Your task to perform on an android device: check google app version Image 0: 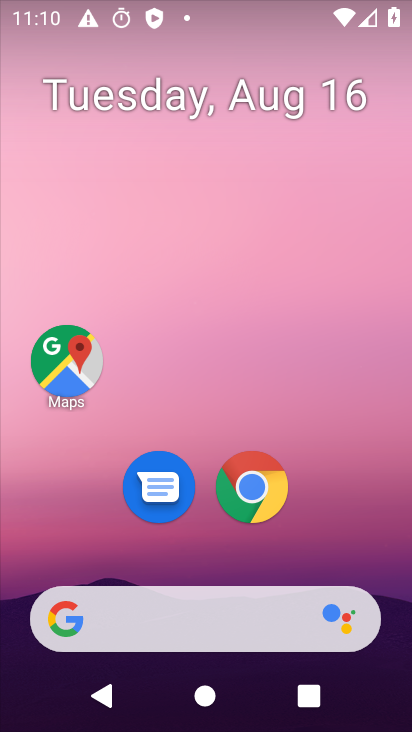
Step 0: drag from (336, 572) to (248, 131)
Your task to perform on an android device: check google app version Image 1: 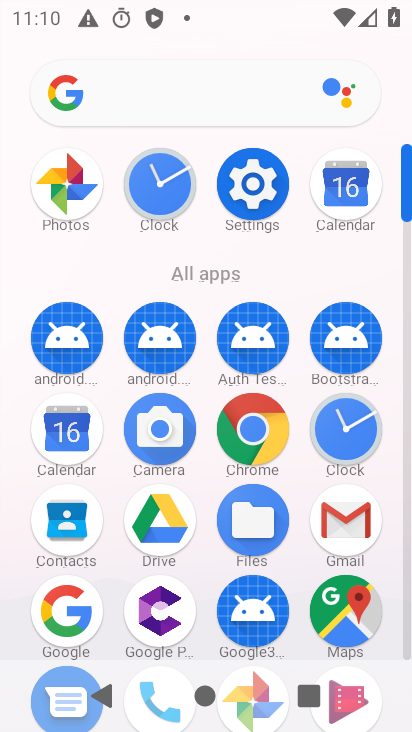
Step 1: click (70, 616)
Your task to perform on an android device: check google app version Image 2: 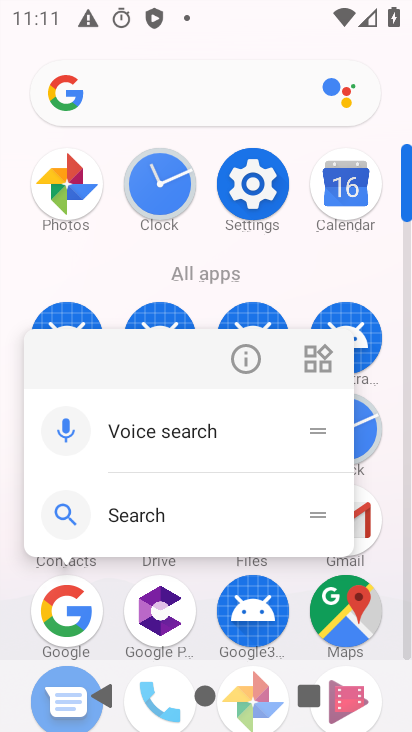
Step 2: click (256, 365)
Your task to perform on an android device: check google app version Image 3: 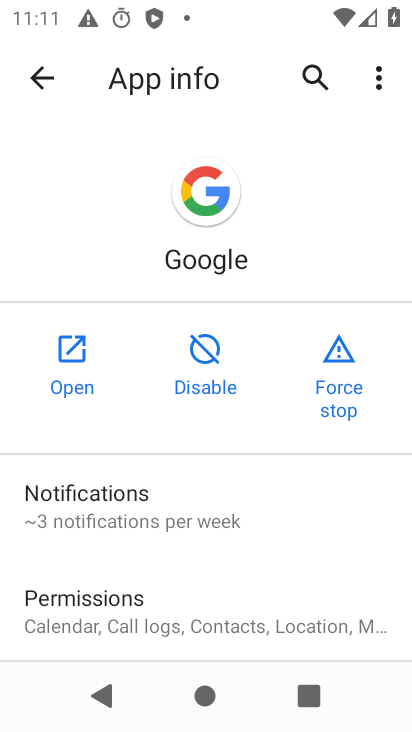
Step 3: drag from (340, 528) to (284, 7)
Your task to perform on an android device: check google app version Image 4: 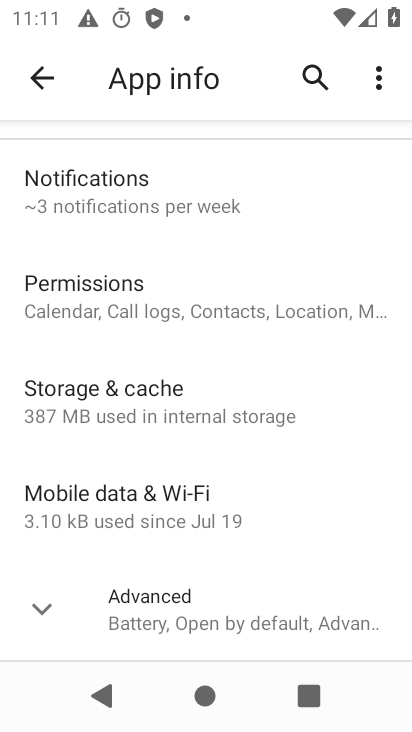
Step 4: drag from (294, 596) to (252, 247)
Your task to perform on an android device: check google app version Image 5: 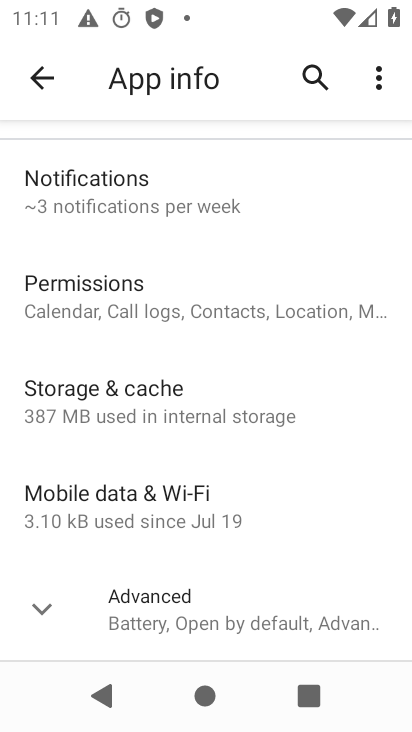
Step 5: click (217, 629)
Your task to perform on an android device: check google app version Image 6: 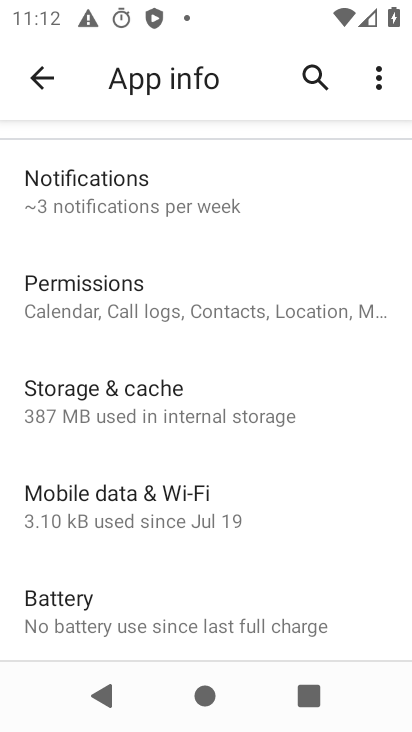
Step 6: task complete